Your task to perform on an android device: Open battery settings Image 0: 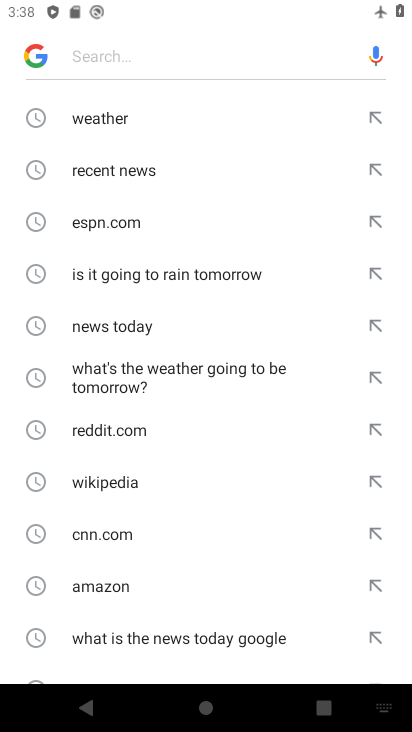
Step 0: press home button
Your task to perform on an android device: Open battery settings Image 1: 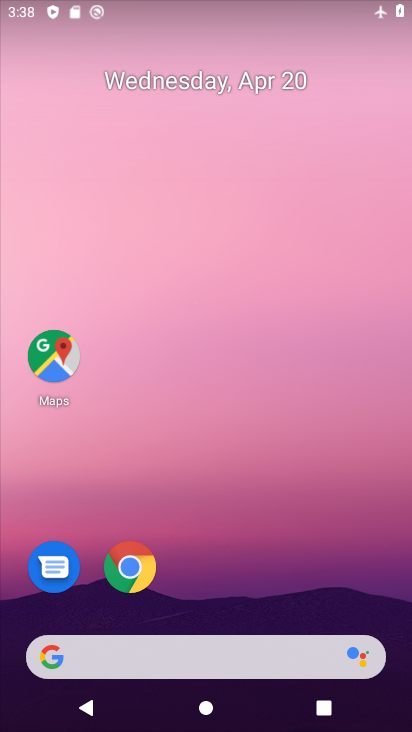
Step 1: drag from (262, 541) to (195, 101)
Your task to perform on an android device: Open battery settings Image 2: 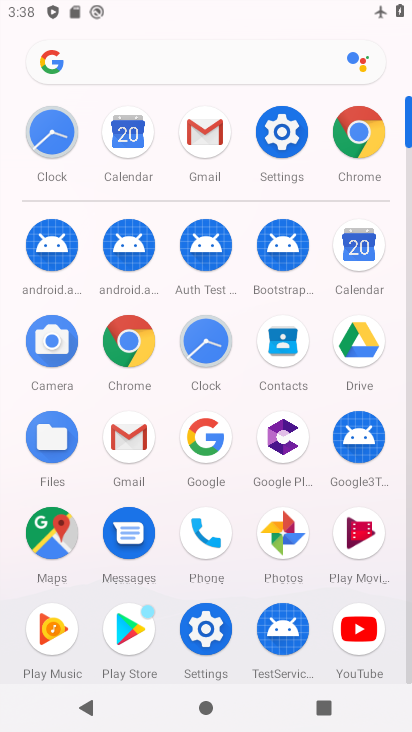
Step 2: click (212, 625)
Your task to perform on an android device: Open battery settings Image 3: 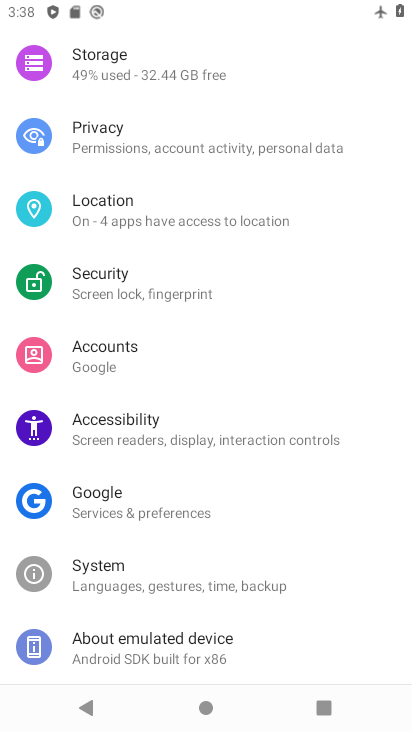
Step 3: drag from (268, 167) to (231, 646)
Your task to perform on an android device: Open battery settings Image 4: 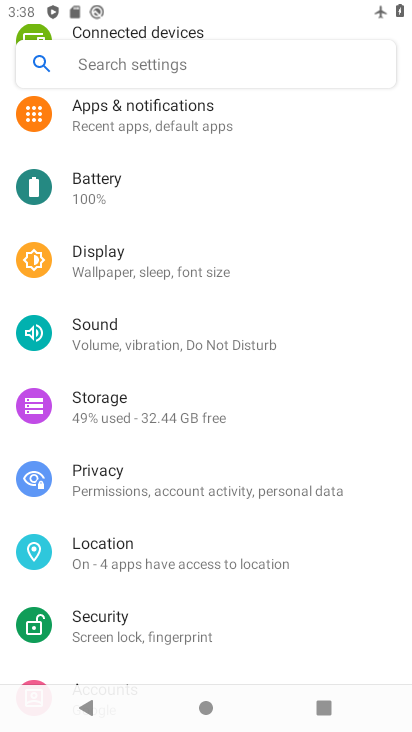
Step 4: click (169, 188)
Your task to perform on an android device: Open battery settings Image 5: 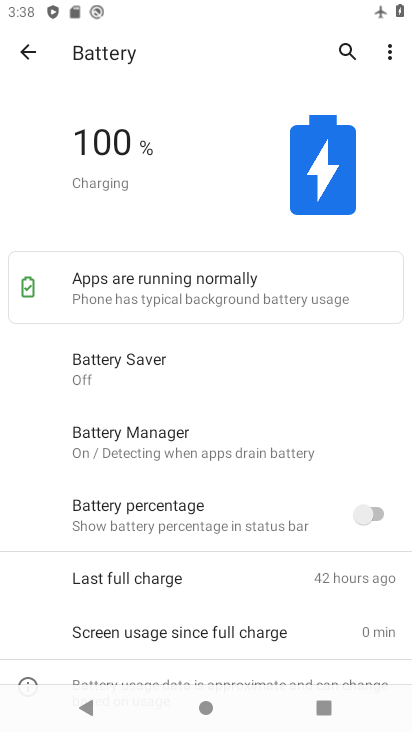
Step 5: task complete